Your task to perform on an android device: What is the capital of Brazil? Image 0: 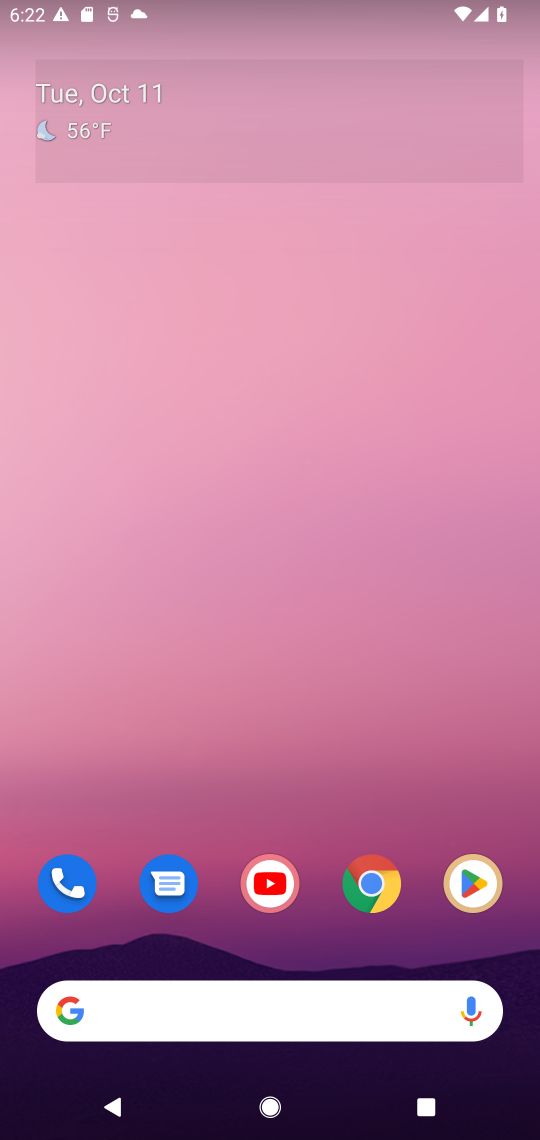
Step 0: drag from (328, 931) to (323, 6)
Your task to perform on an android device: What is the capital of Brazil? Image 1: 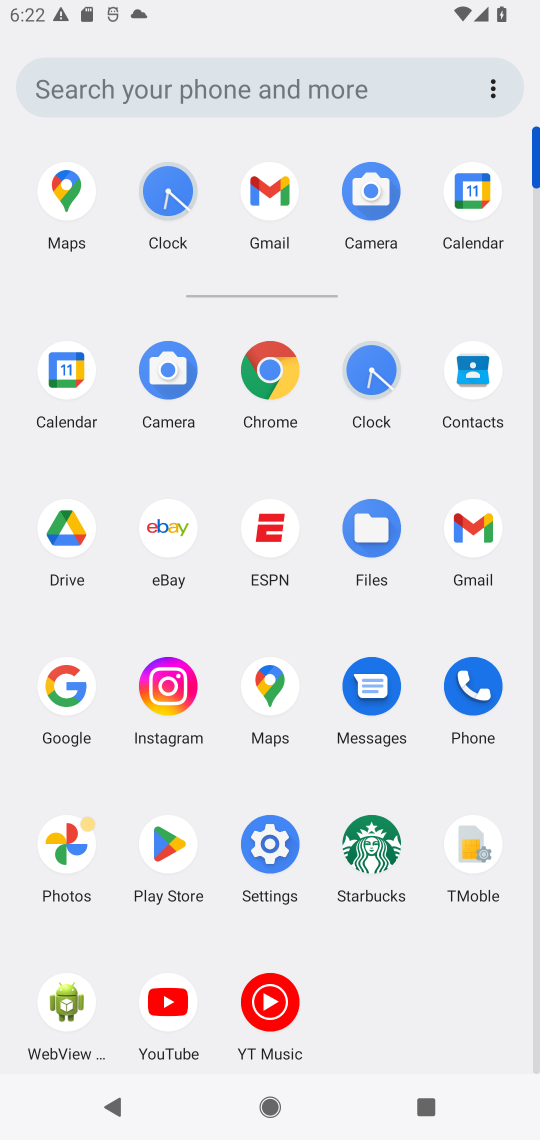
Step 1: click (271, 361)
Your task to perform on an android device: What is the capital of Brazil? Image 2: 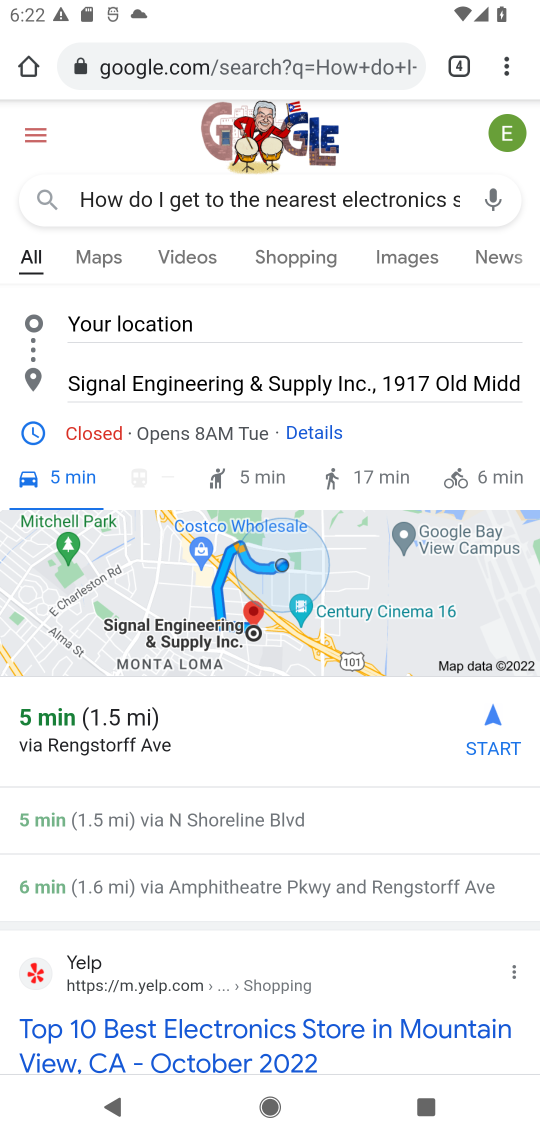
Step 2: click (308, 46)
Your task to perform on an android device: What is the capital of Brazil? Image 3: 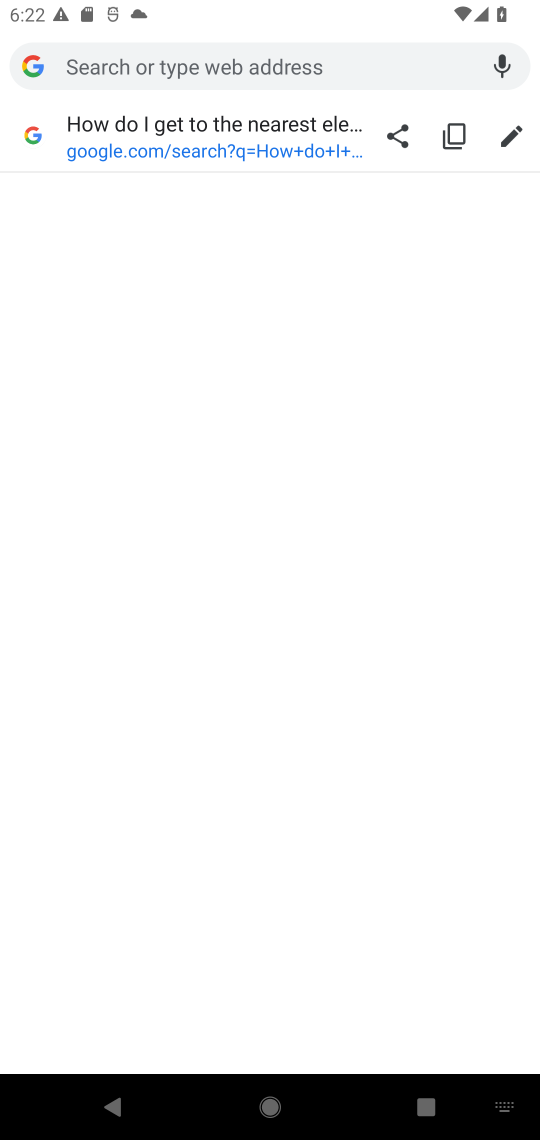
Step 3: type "What is the capital of Brail?"
Your task to perform on an android device: What is the capital of Brazil? Image 4: 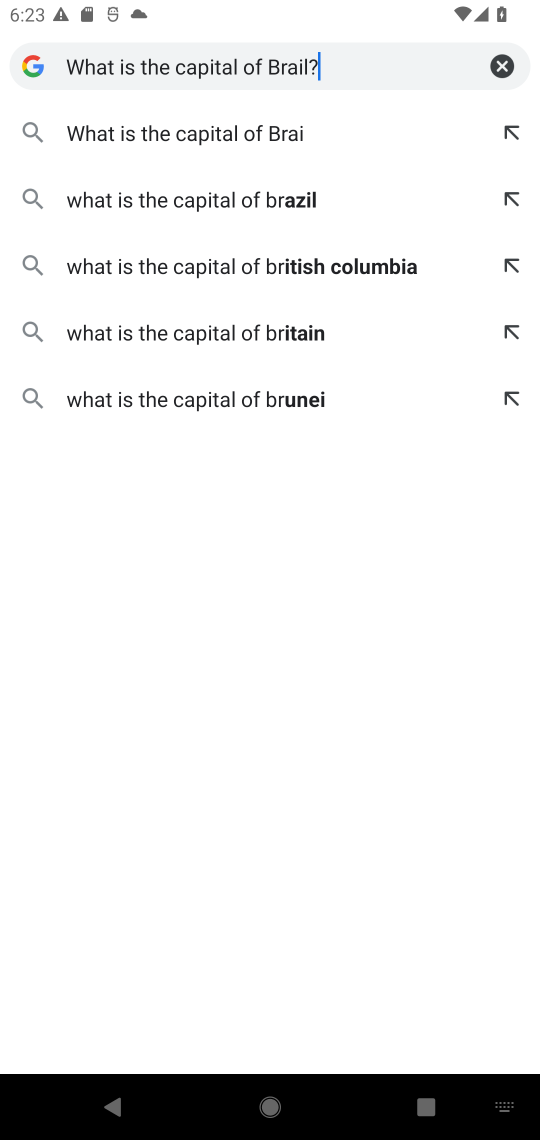
Step 4: press enter
Your task to perform on an android device: What is the capital of Brazil? Image 5: 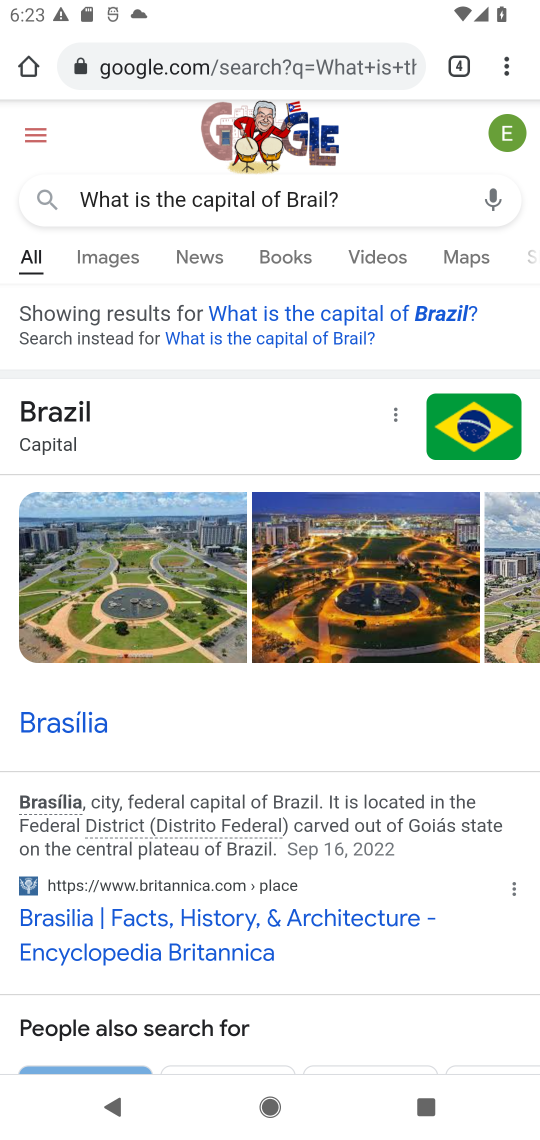
Step 5: task complete